Your task to perform on an android device: open a bookmark in the chrome app Image 0: 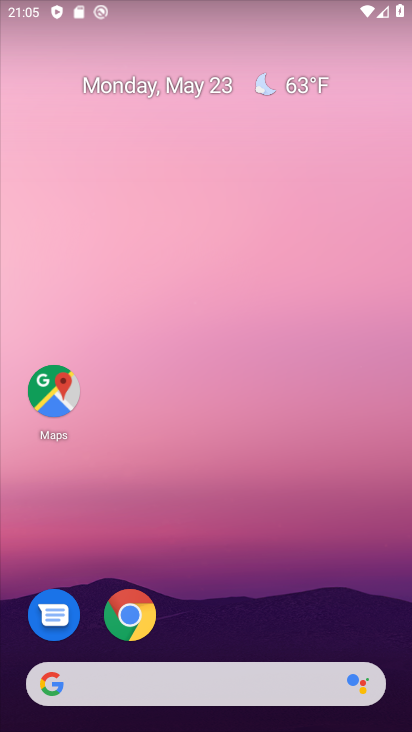
Step 0: click (134, 609)
Your task to perform on an android device: open a bookmark in the chrome app Image 1: 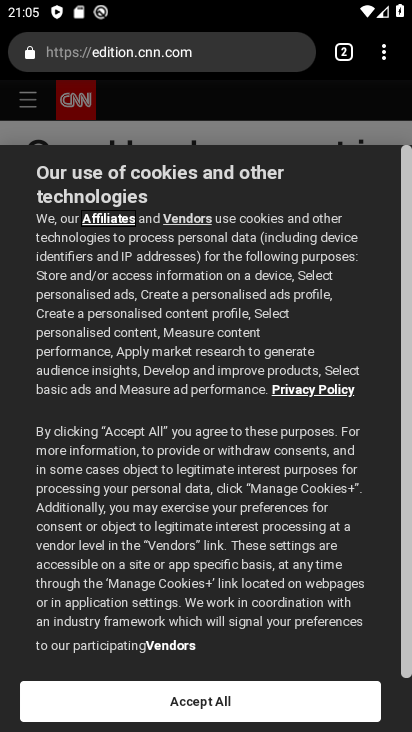
Step 1: click (380, 54)
Your task to perform on an android device: open a bookmark in the chrome app Image 2: 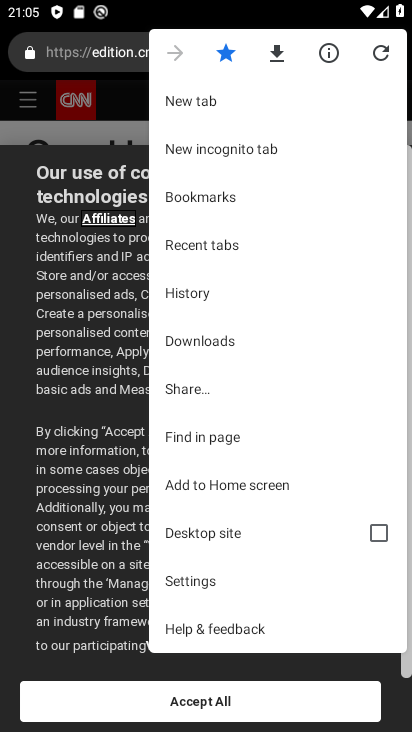
Step 2: click (246, 208)
Your task to perform on an android device: open a bookmark in the chrome app Image 3: 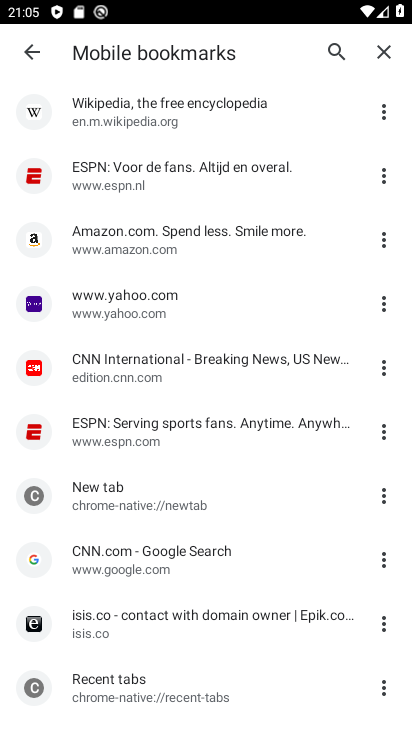
Step 3: click (155, 314)
Your task to perform on an android device: open a bookmark in the chrome app Image 4: 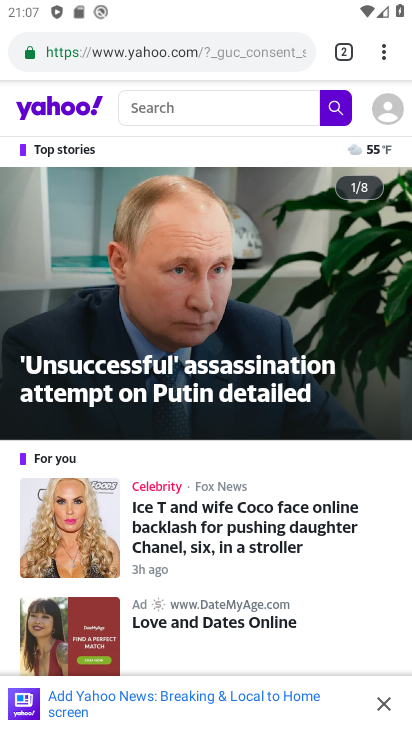
Step 4: task complete